Your task to perform on an android device: When is my next appointment? Image 0: 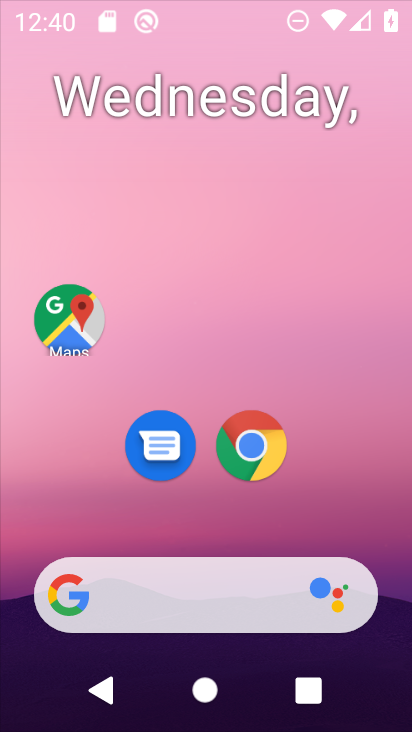
Step 0: drag from (392, 622) to (220, 95)
Your task to perform on an android device: When is my next appointment? Image 1: 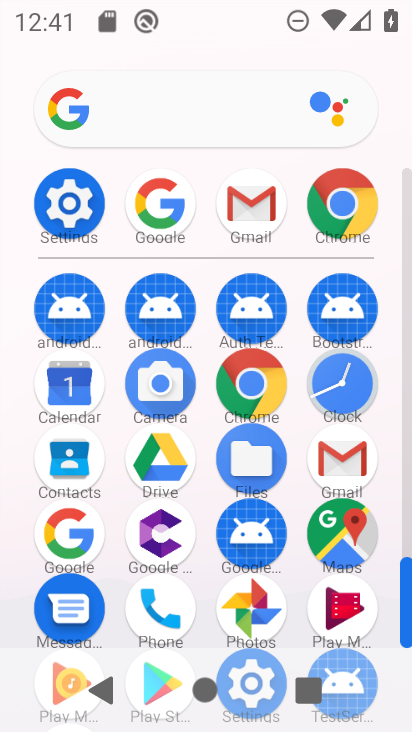
Step 1: click (88, 377)
Your task to perform on an android device: When is my next appointment? Image 2: 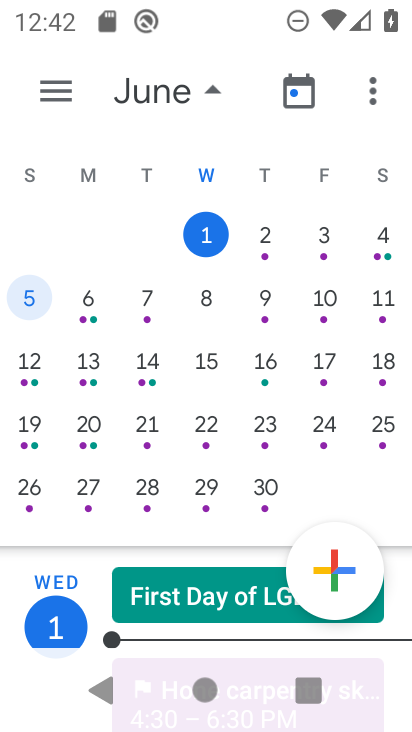
Step 2: task complete